Your task to perform on an android device: Open calendar and show me the second week of next month Image 0: 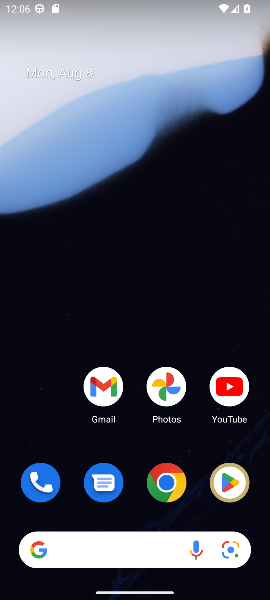
Step 0: drag from (123, 532) to (227, 10)
Your task to perform on an android device: Open calendar and show me the second week of next month Image 1: 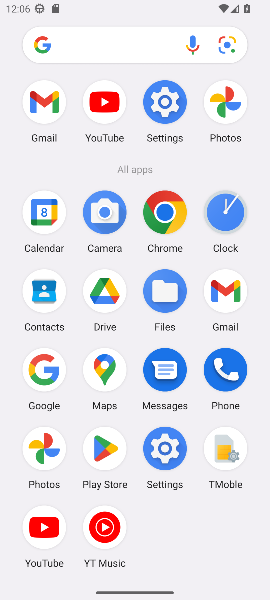
Step 1: click (49, 228)
Your task to perform on an android device: Open calendar and show me the second week of next month Image 2: 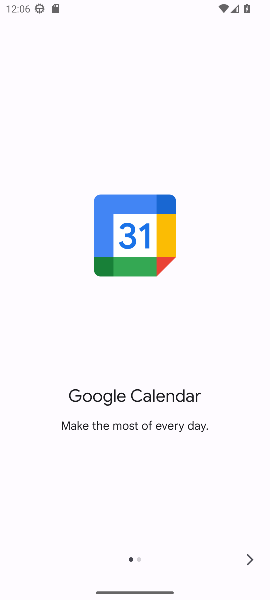
Step 2: click (248, 561)
Your task to perform on an android device: Open calendar and show me the second week of next month Image 3: 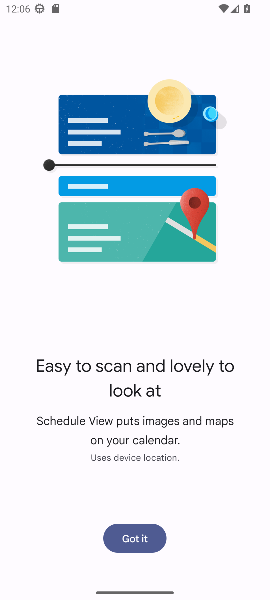
Step 3: click (248, 561)
Your task to perform on an android device: Open calendar and show me the second week of next month Image 4: 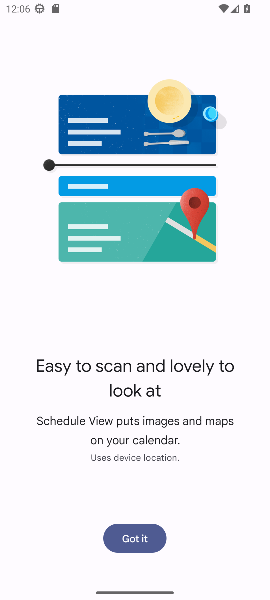
Step 4: click (153, 534)
Your task to perform on an android device: Open calendar and show me the second week of next month Image 5: 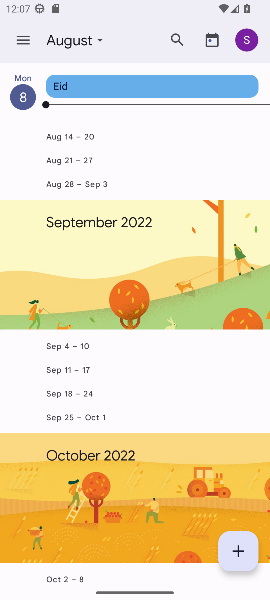
Step 5: click (99, 40)
Your task to perform on an android device: Open calendar and show me the second week of next month Image 6: 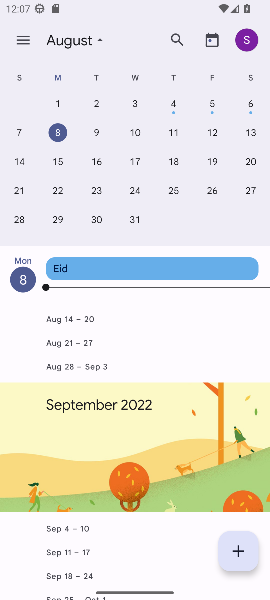
Step 6: drag from (249, 172) to (0, 228)
Your task to perform on an android device: Open calendar and show me the second week of next month Image 7: 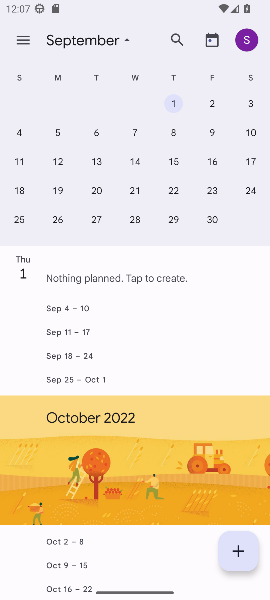
Step 7: click (132, 131)
Your task to perform on an android device: Open calendar and show me the second week of next month Image 8: 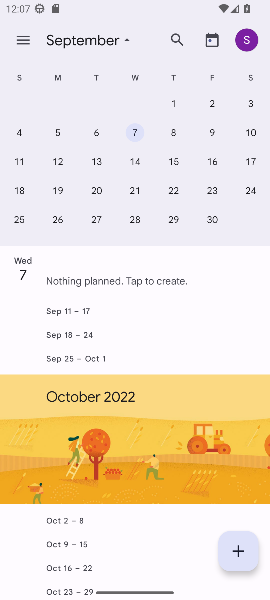
Step 8: click (24, 40)
Your task to perform on an android device: Open calendar and show me the second week of next month Image 9: 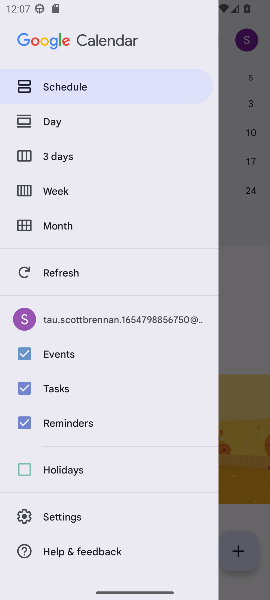
Step 9: click (58, 193)
Your task to perform on an android device: Open calendar and show me the second week of next month Image 10: 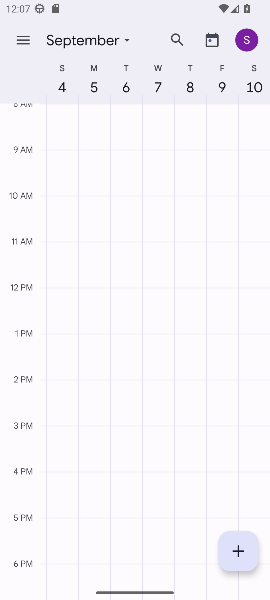
Step 10: task complete